Your task to perform on an android device: change keyboard looks Image 0: 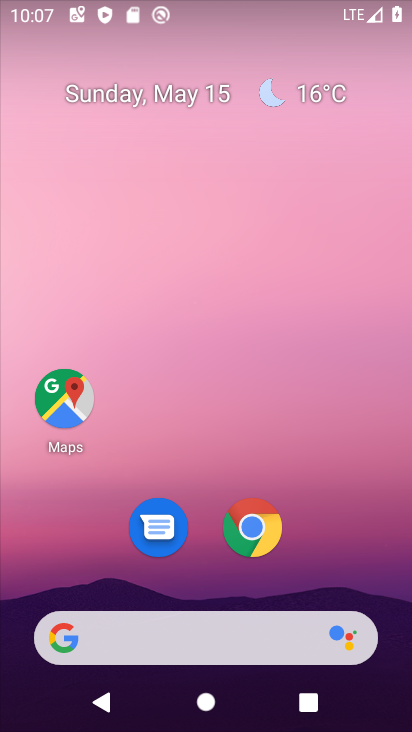
Step 0: drag from (358, 557) to (383, 12)
Your task to perform on an android device: change keyboard looks Image 1: 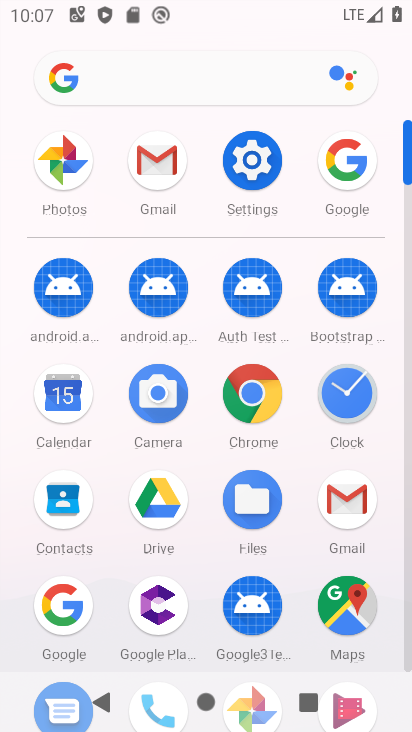
Step 1: click (256, 159)
Your task to perform on an android device: change keyboard looks Image 2: 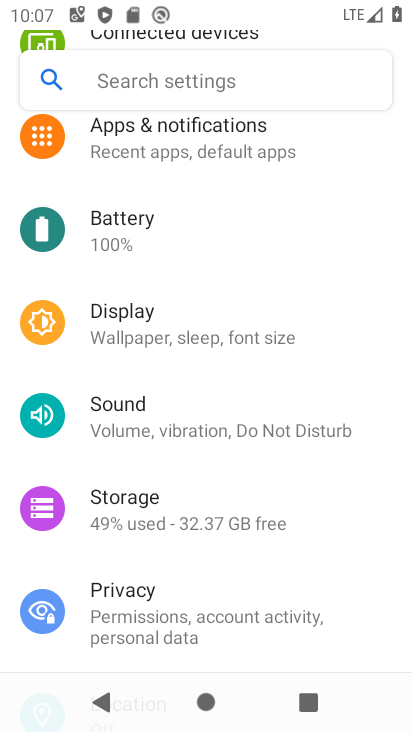
Step 2: drag from (386, 632) to (391, 87)
Your task to perform on an android device: change keyboard looks Image 3: 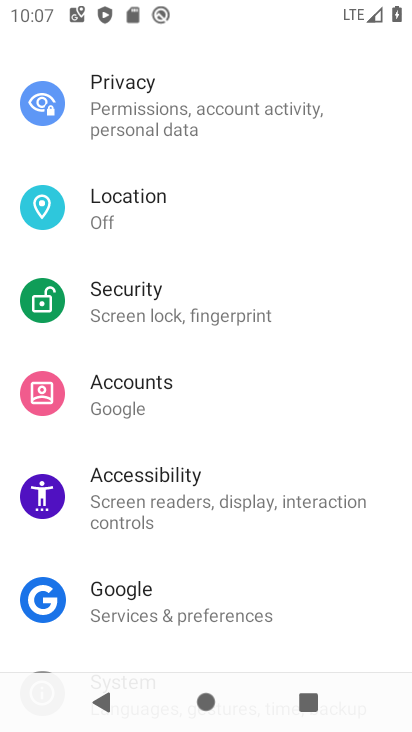
Step 3: drag from (329, 587) to (322, 192)
Your task to perform on an android device: change keyboard looks Image 4: 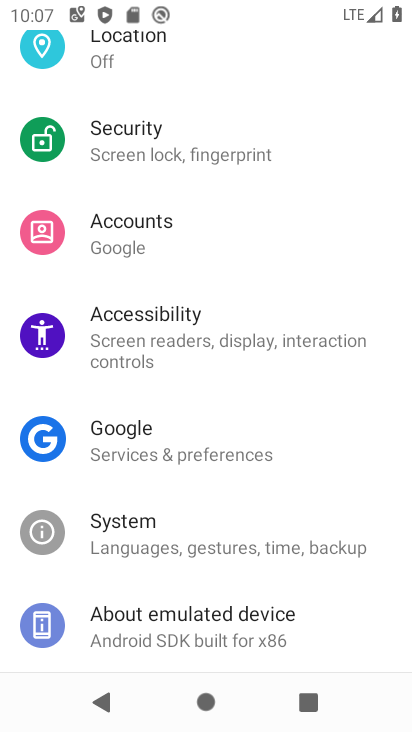
Step 4: click (110, 538)
Your task to perform on an android device: change keyboard looks Image 5: 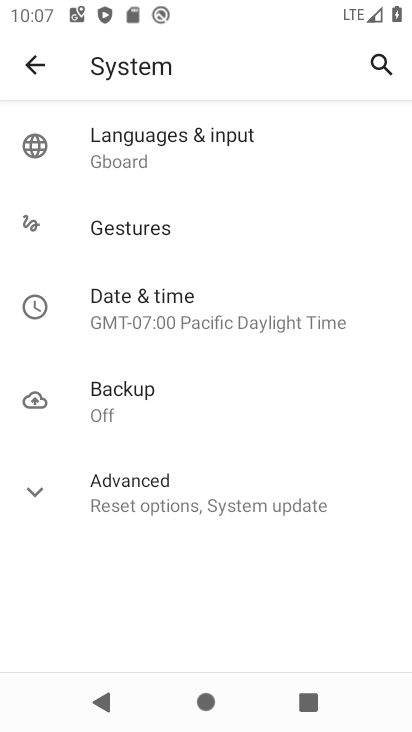
Step 5: click (122, 166)
Your task to perform on an android device: change keyboard looks Image 6: 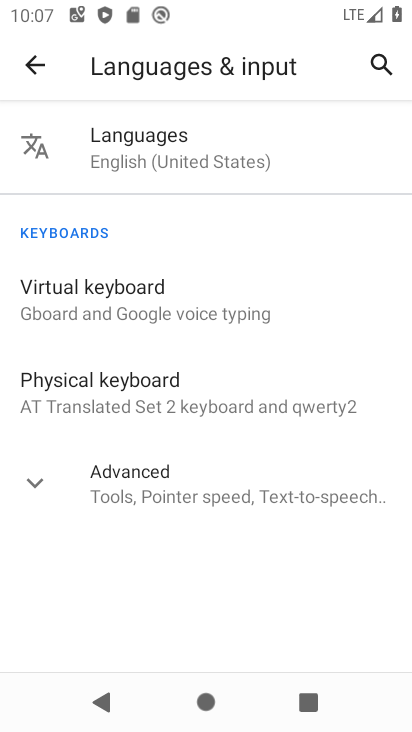
Step 6: click (76, 308)
Your task to perform on an android device: change keyboard looks Image 7: 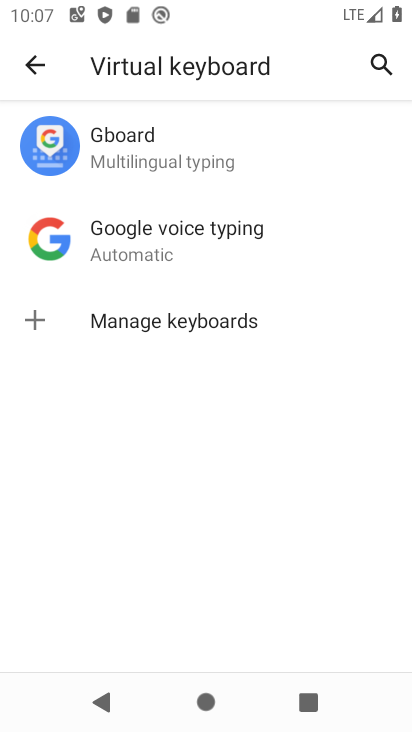
Step 7: click (96, 141)
Your task to perform on an android device: change keyboard looks Image 8: 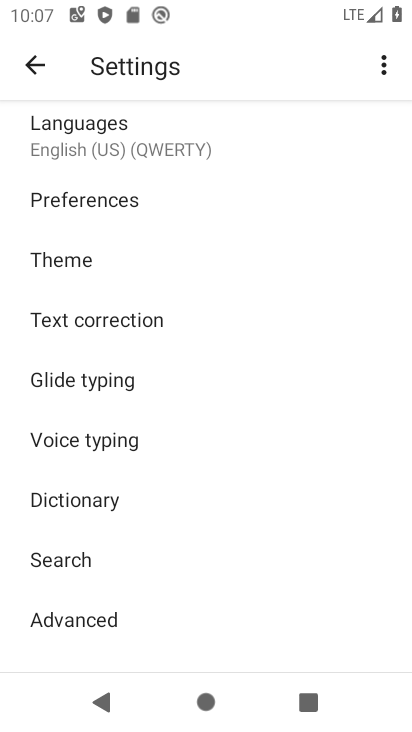
Step 8: click (61, 266)
Your task to perform on an android device: change keyboard looks Image 9: 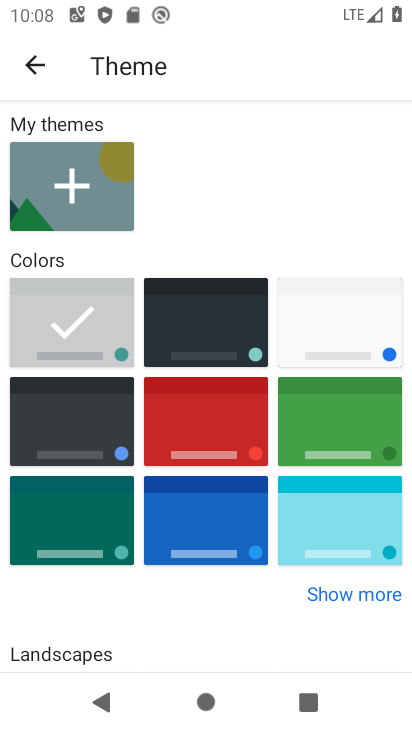
Step 9: click (174, 427)
Your task to perform on an android device: change keyboard looks Image 10: 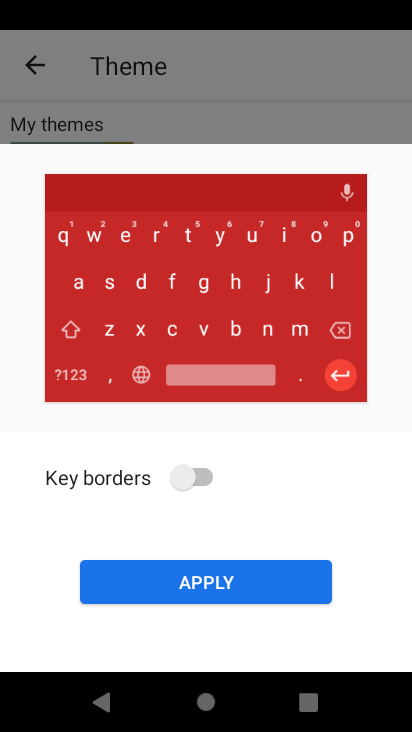
Step 10: click (205, 483)
Your task to perform on an android device: change keyboard looks Image 11: 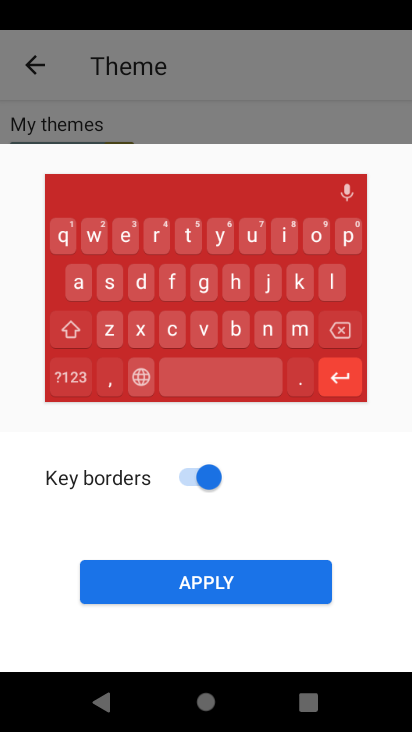
Step 11: click (208, 573)
Your task to perform on an android device: change keyboard looks Image 12: 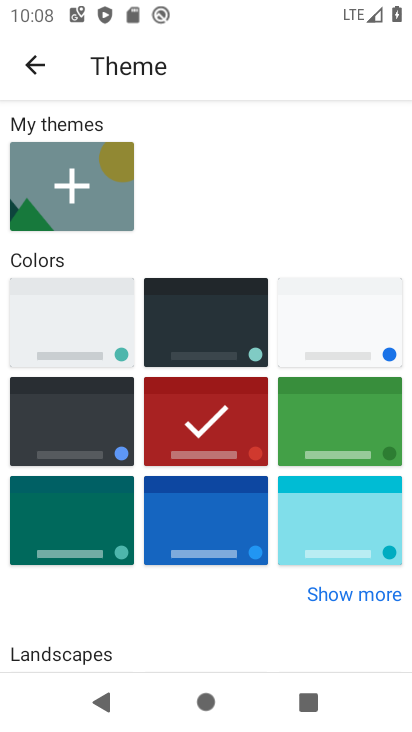
Step 12: task complete